Your task to perform on an android device: Go to Google Image 0: 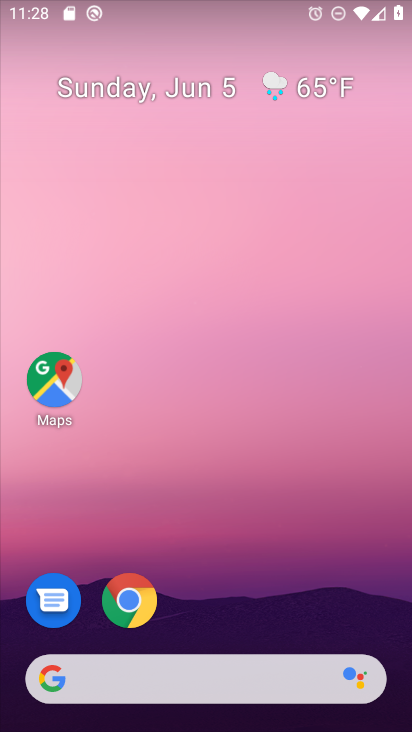
Step 0: drag from (364, 620) to (278, 73)
Your task to perform on an android device: Go to Google Image 1: 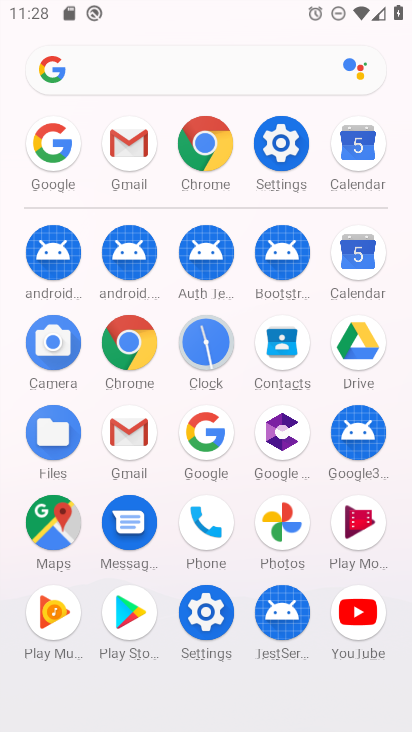
Step 1: click (189, 438)
Your task to perform on an android device: Go to Google Image 2: 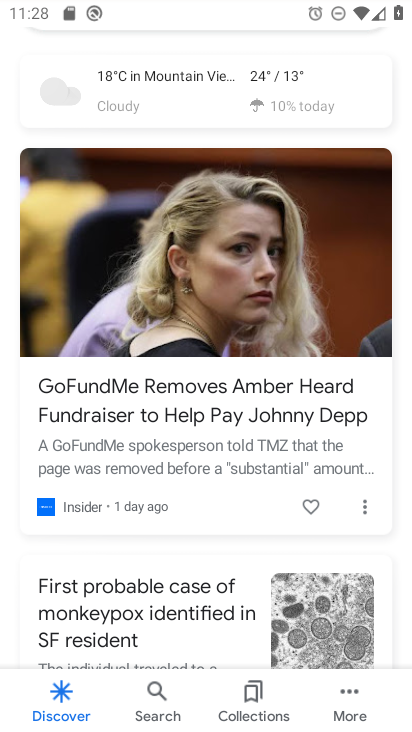
Step 2: task complete